Your task to perform on an android device: Open privacy settings Image 0: 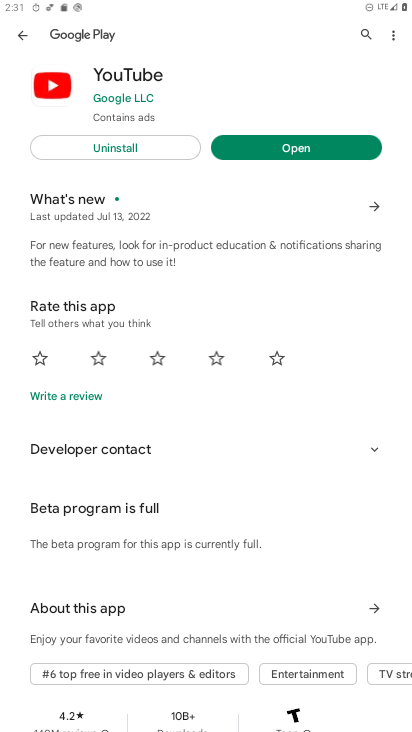
Step 0: press home button
Your task to perform on an android device: Open privacy settings Image 1: 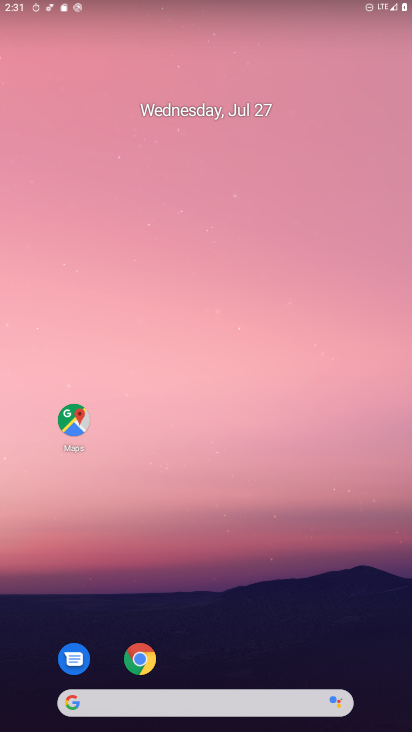
Step 1: drag from (278, 604) to (243, 14)
Your task to perform on an android device: Open privacy settings Image 2: 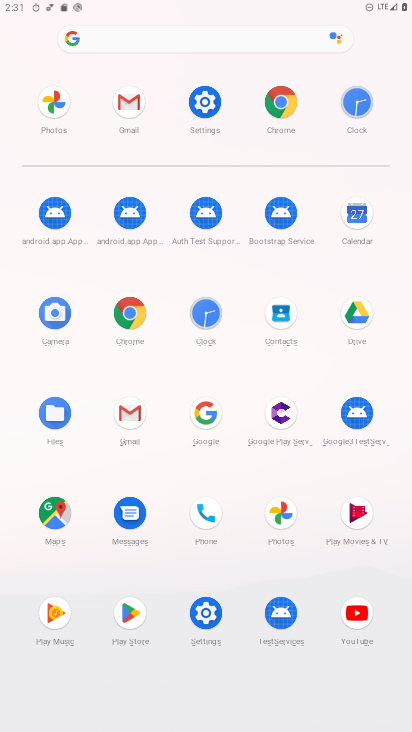
Step 2: click (208, 98)
Your task to perform on an android device: Open privacy settings Image 3: 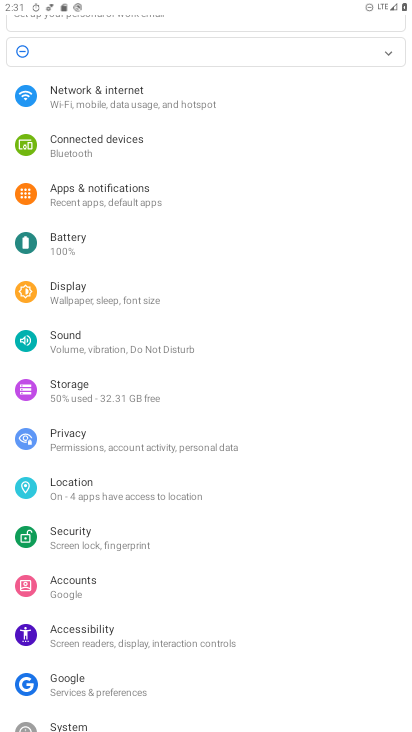
Step 3: drag from (236, 640) to (262, 150)
Your task to perform on an android device: Open privacy settings Image 4: 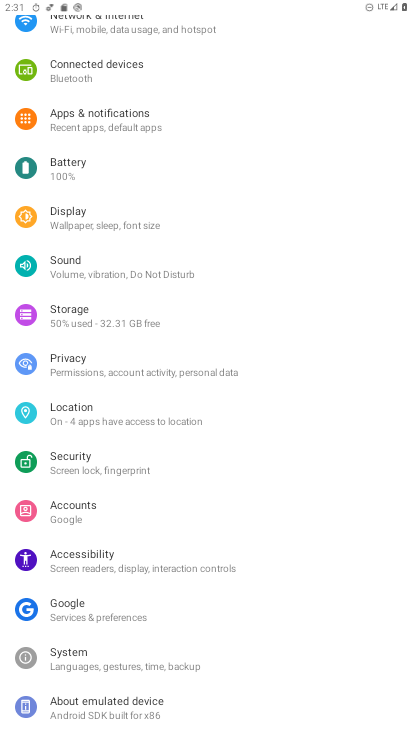
Step 4: click (105, 364)
Your task to perform on an android device: Open privacy settings Image 5: 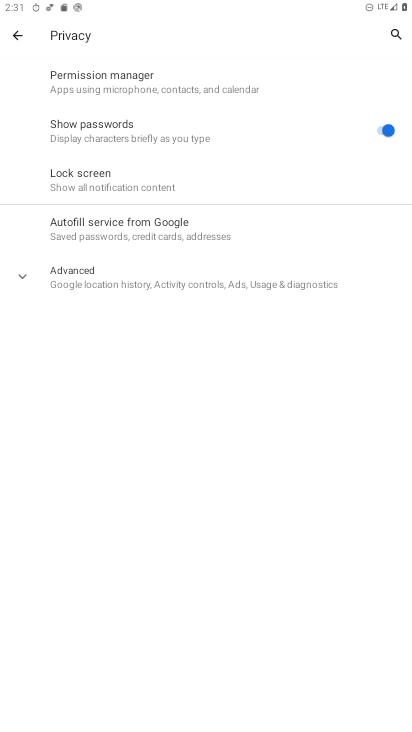
Step 5: click (195, 281)
Your task to perform on an android device: Open privacy settings Image 6: 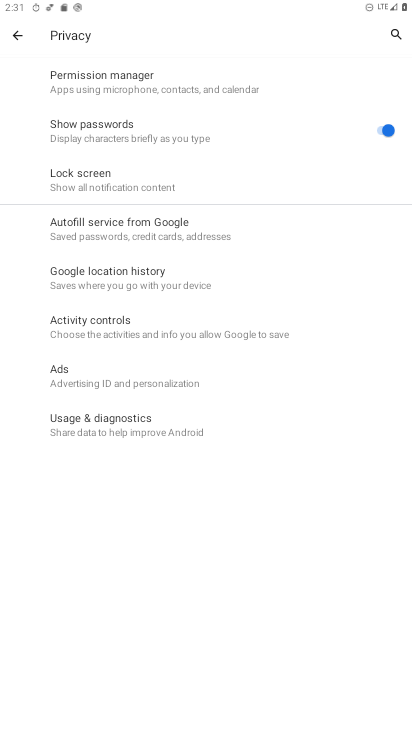
Step 6: task complete